Your task to perform on an android device: Go to ESPN.com Image 0: 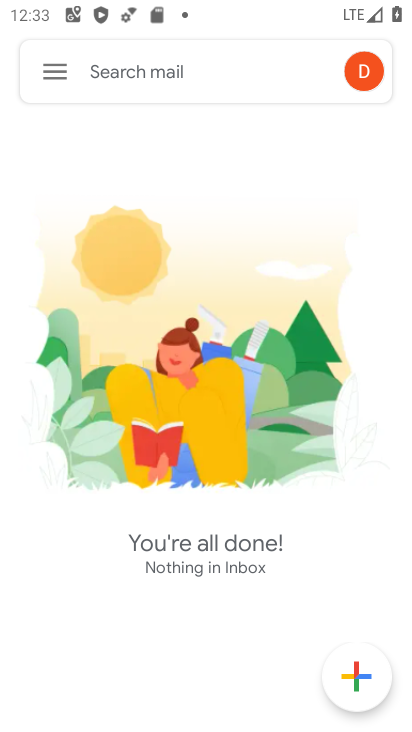
Step 0: press home button
Your task to perform on an android device: Go to ESPN.com Image 1: 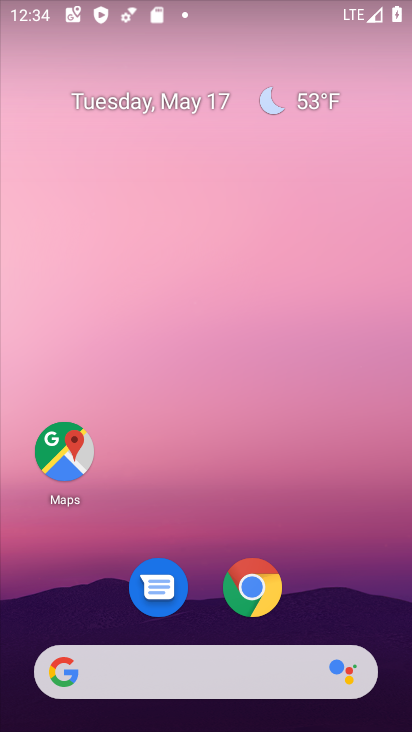
Step 1: click (240, 610)
Your task to perform on an android device: Go to ESPN.com Image 2: 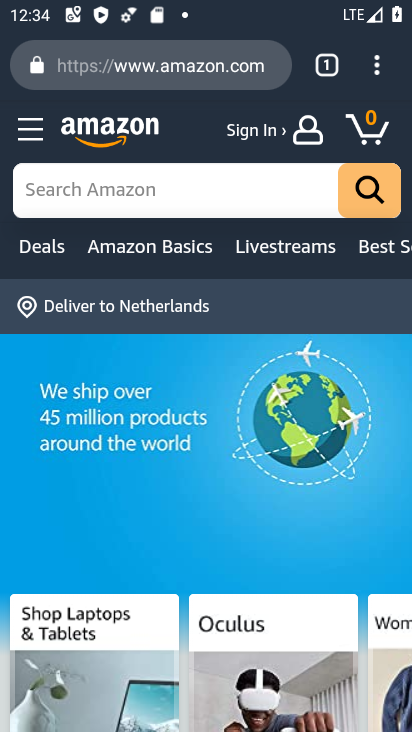
Step 2: click (313, 60)
Your task to perform on an android device: Go to ESPN.com Image 3: 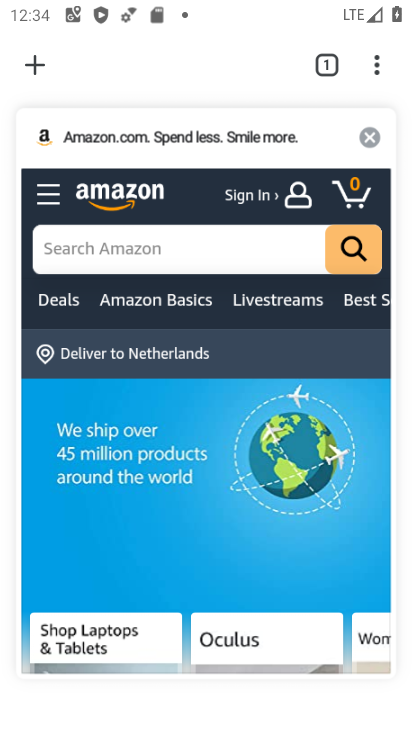
Step 3: click (34, 64)
Your task to perform on an android device: Go to ESPN.com Image 4: 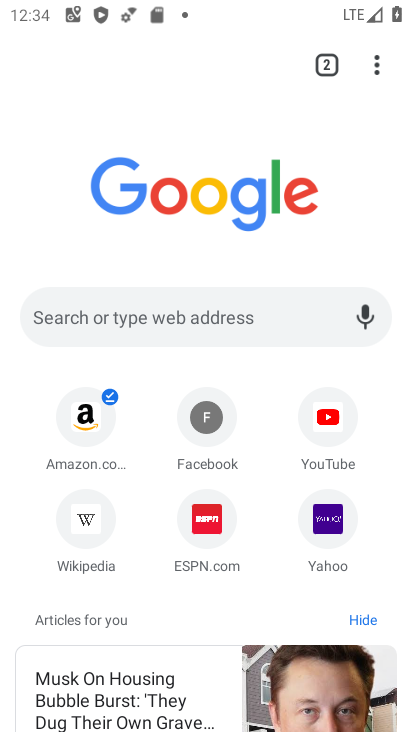
Step 4: click (189, 534)
Your task to perform on an android device: Go to ESPN.com Image 5: 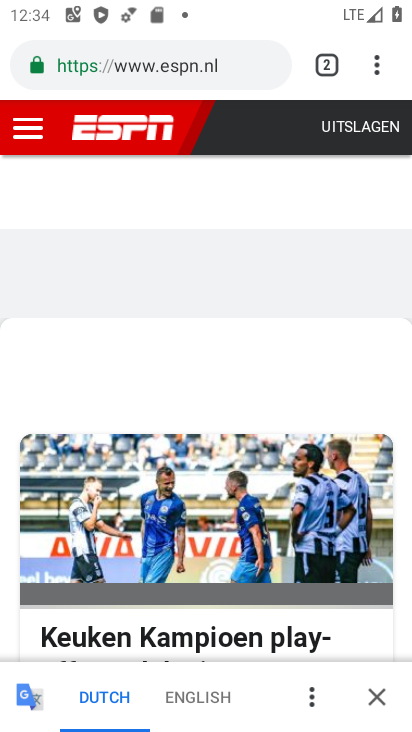
Step 5: task complete